Your task to perform on an android device: Is it going to rain this weekend? Image 0: 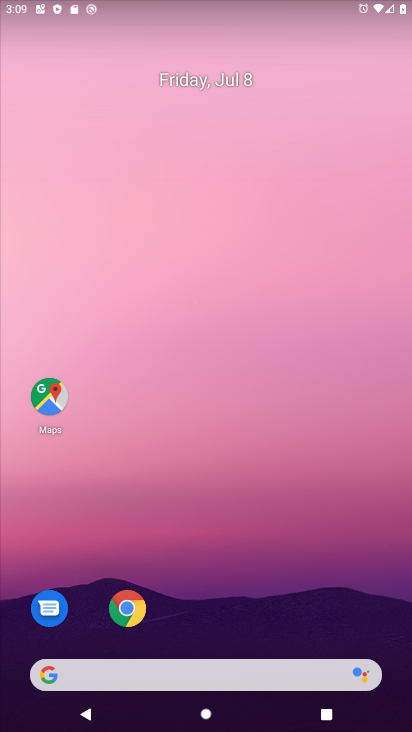
Step 0: drag from (328, 669) to (309, 4)
Your task to perform on an android device: Is it going to rain this weekend? Image 1: 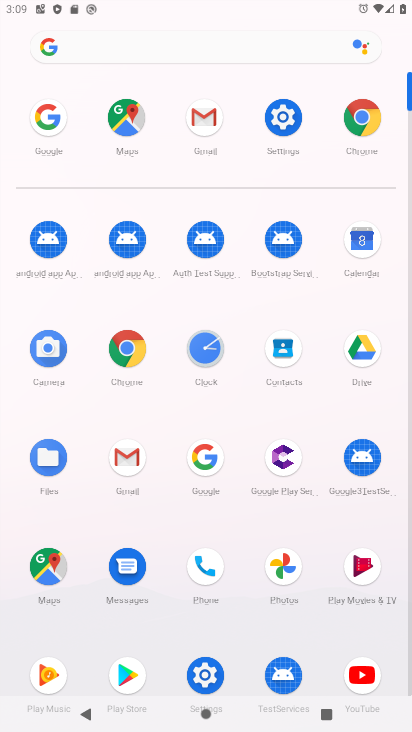
Step 1: click (197, 461)
Your task to perform on an android device: Is it going to rain this weekend? Image 2: 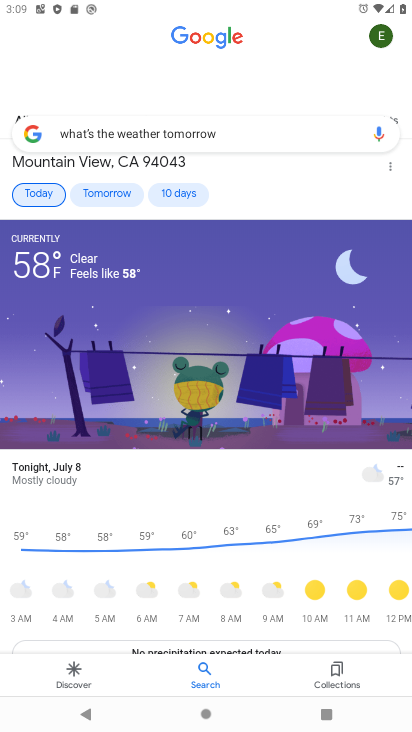
Step 2: task complete